Your task to perform on an android device: turn off priority inbox in the gmail app Image 0: 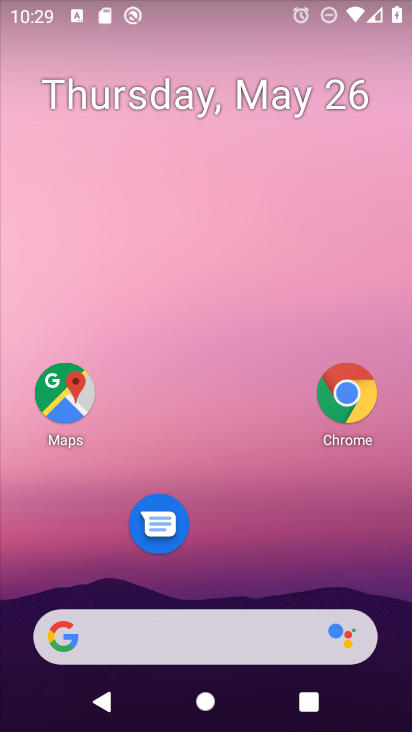
Step 0: drag from (238, 512) to (279, 9)
Your task to perform on an android device: turn off priority inbox in the gmail app Image 1: 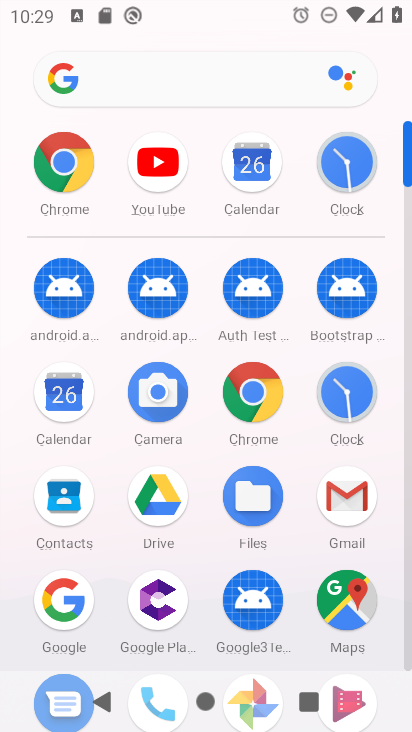
Step 1: click (334, 495)
Your task to perform on an android device: turn off priority inbox in the gmail app Image 2: 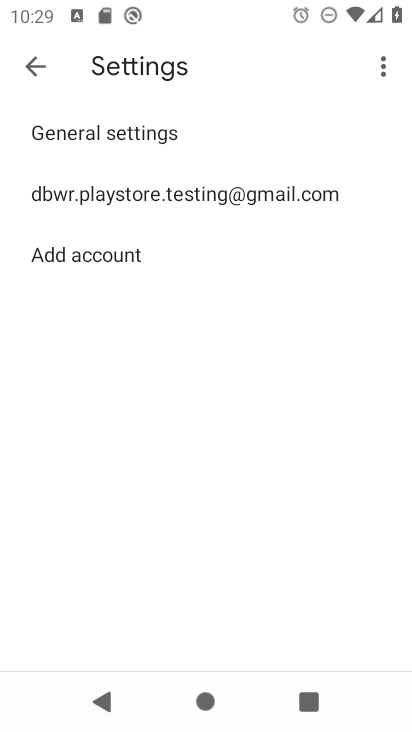
Step 2: click (163, 189)
Your task to perform on an android device: turn off priority inbox in the gmail app Image 3: 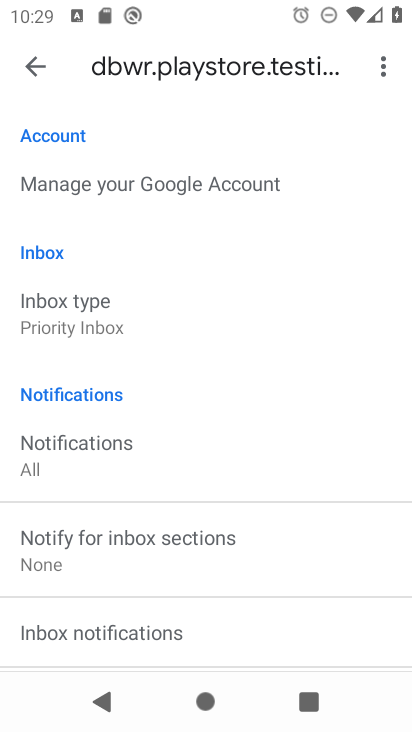
Step 3: click (91, 307)
Your task to perform on an android device: turn off priority inbox in the gmail app Image 4: 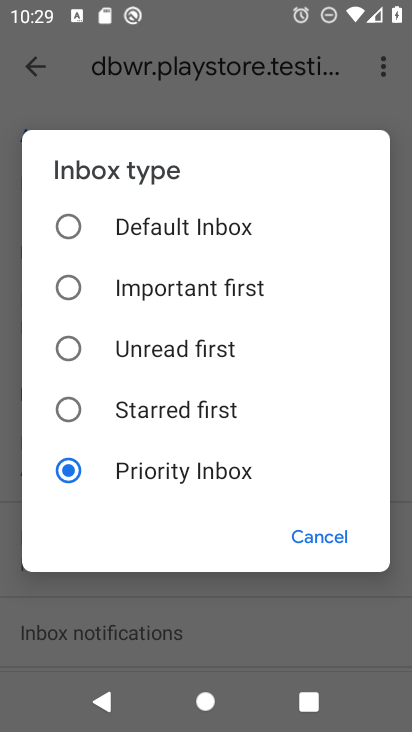
Step 4: click (72, 223)
Your task to perform on an android device: turn off priority inbox in the gmail app Image 5: 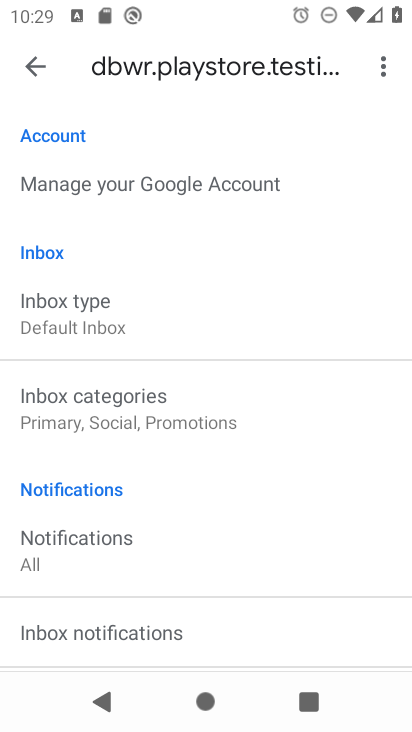
Step 5: task complete